Your task to perform on an android device: What's the weather going to be this weekend? Image 0: 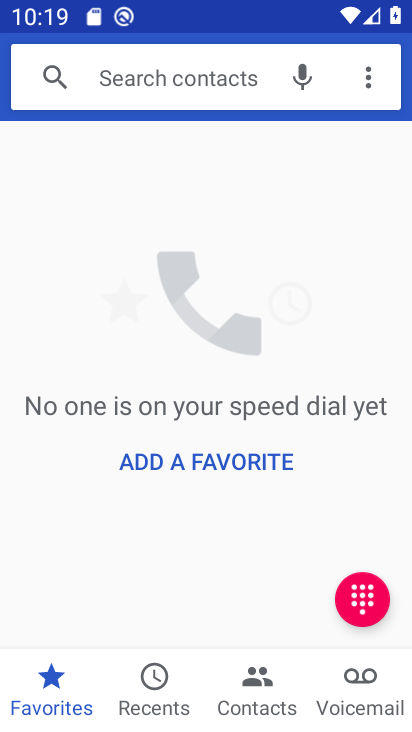
Step 0: press home button
Your task to perform on an android device: What's the weather going to be this weekend? Image 1: 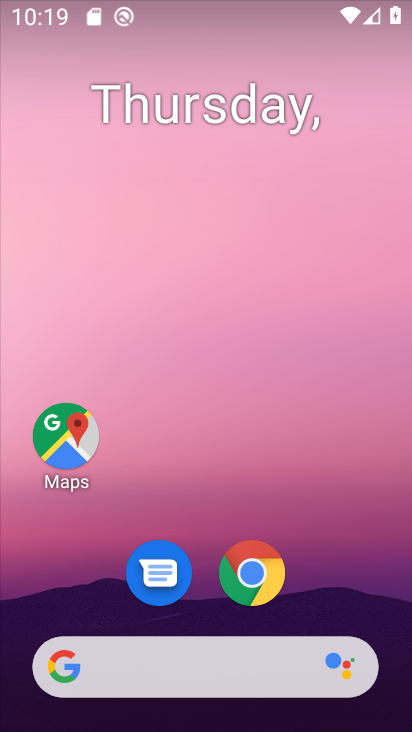
Step 1: drag from (211, 625) to (199, 15)
Your task to perform on an android device: What's the weather going to be this weekend? Image 2: 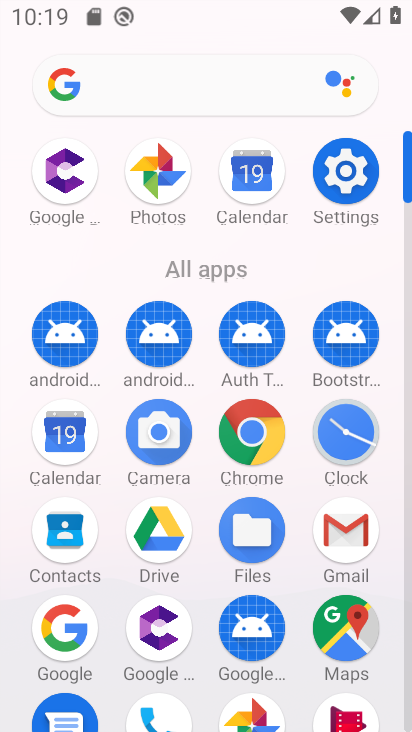
Step 2: click (64, 631)
Your task to perform on an android device: What's the weather going to be this weekend? Image 3: 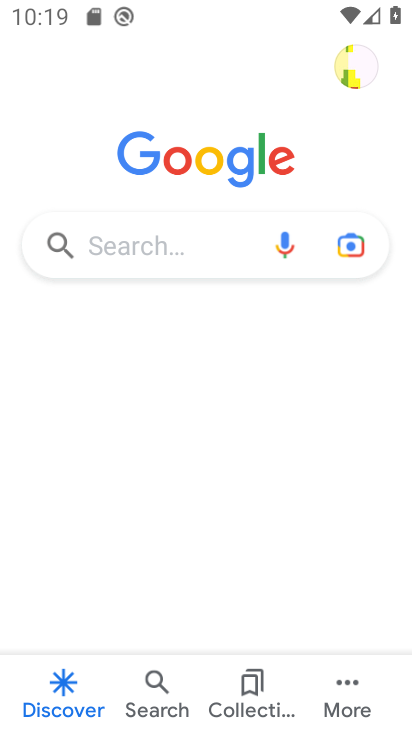
Step 3: click (183, 254)
Your task to perform on an android device: What's the weather going to be this weekend? Image 4: 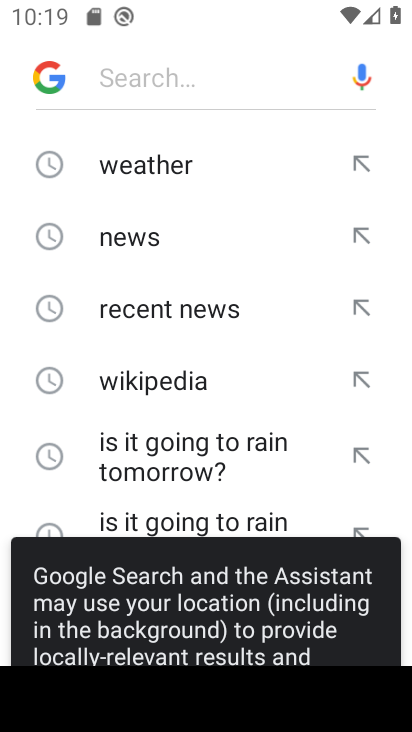
Step 4: click (122, 160)
Your task to perform on an android device: What's the weather going to be this weekend? Image 5: 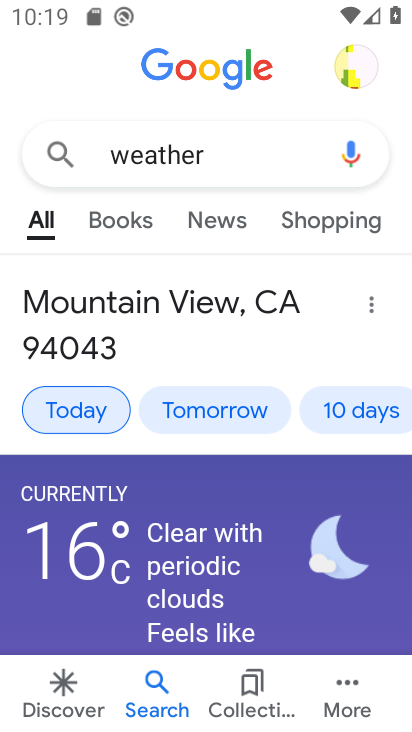
Step 5: click (333, 425)
Your task to perform on an android device: What's the weather going to be this weekend? Image 6: 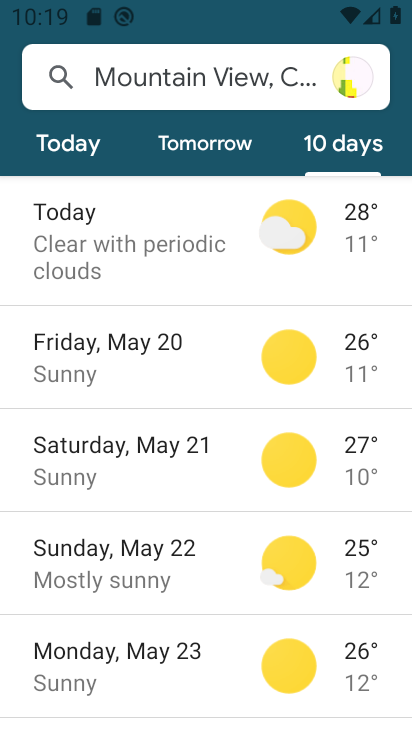
Step 6: task complete